Your task to perform on an android device: Open Chrome and go to the settings page Image 0: 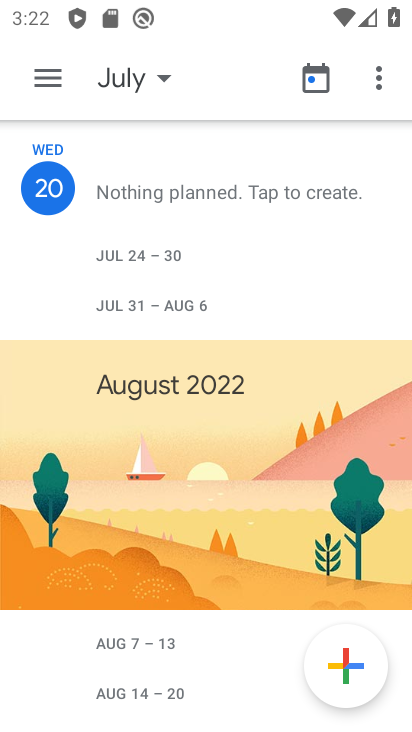
Step 0: press back button
Your task to perform on an android device: Open Chrome and go to the settings page Image 1: 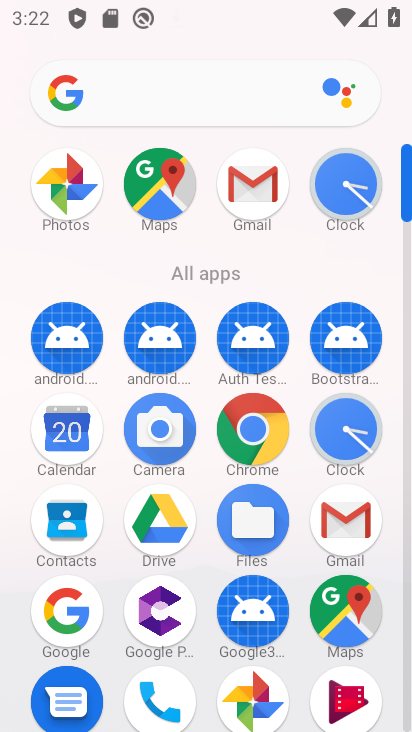
Step 1: click (240, 431)
Your task to perform on an android device: Open Chrome and go to the settings page Image 2: 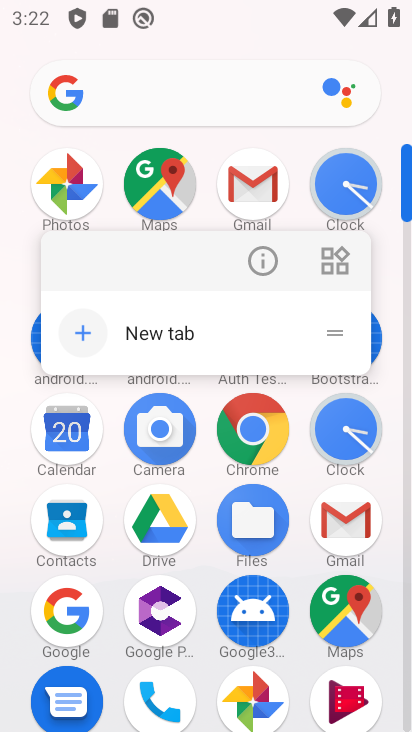
Step 2: click (256, 418)
Your task to perform on an android device: Open Chrome and go to the settings page Image 3: 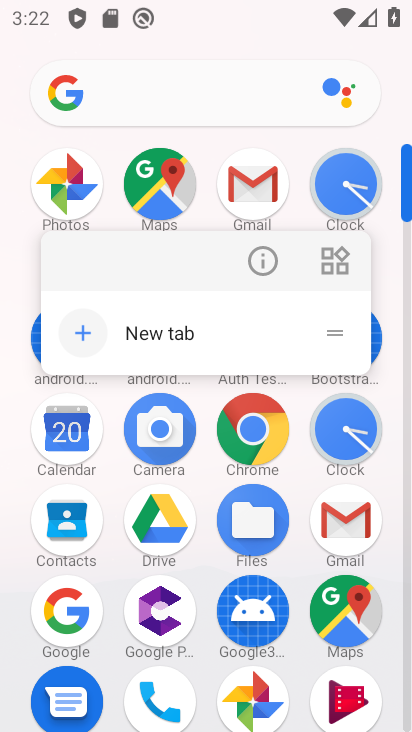
Step 3: click (249, 412)
Your task to perform on an android device: Open Chrome and go to the settings page Image 4: 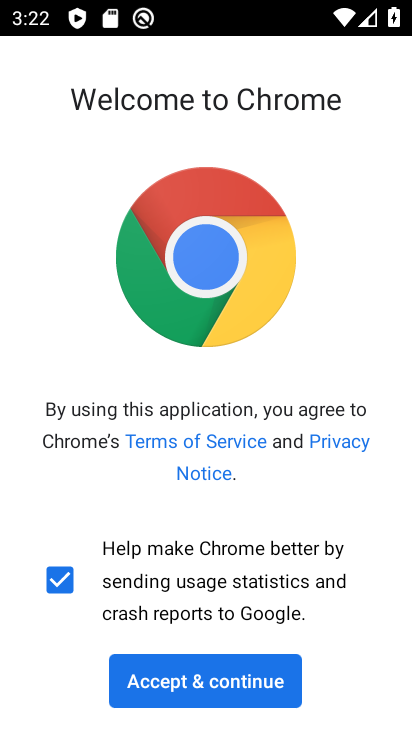
Step 4: click (166, 695)
Your task to perform on an android device: Open Chrome and go to the settings page Image 5: 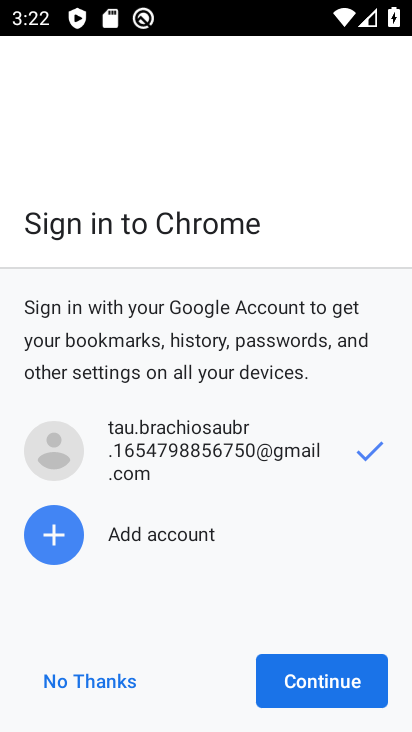
Step 5: click (315, 685)
Your task to perform on an android device: Open Chrome and go to the settings page Image 6: 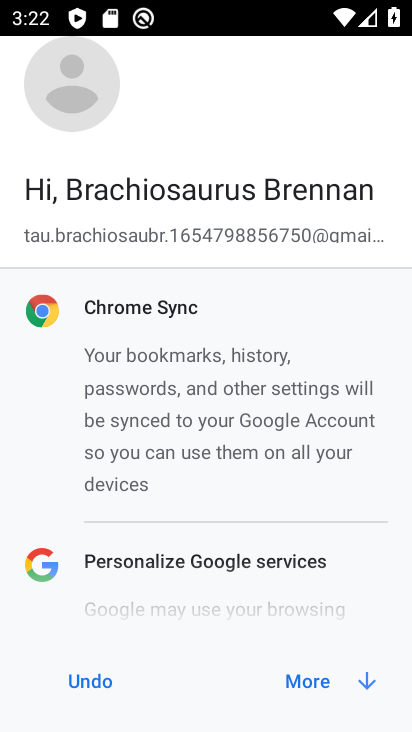
Step 6: click (312, 685)
Your task to perform on an android device: Open Chrome and go to the settings page Image 7: 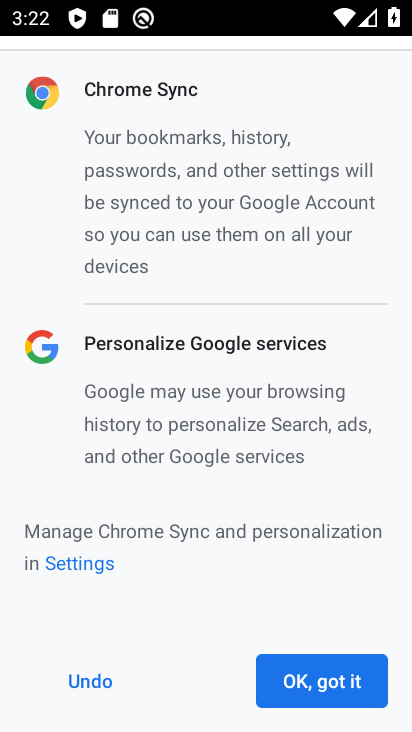
Step 7: click (322, 682)
Your task to perform on an android device: Open Chrome and go to the settings page Image 8: 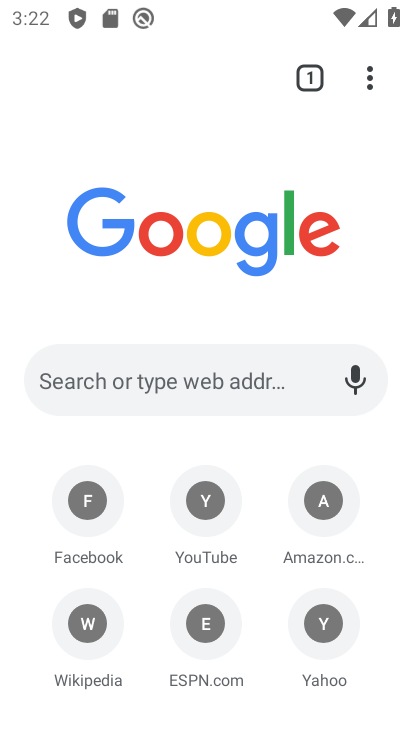
Step 8: task complete